Your task to perform on an android device: toggle notification dots Image 0: 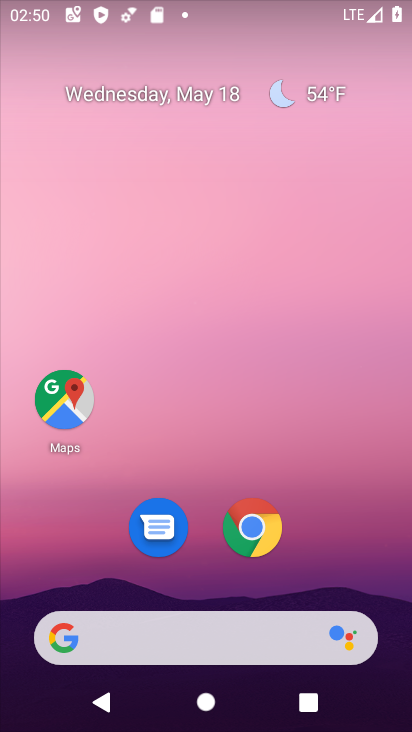
Step 0: drag from (232, 610) to (187, 215)
Your task to perform on an android device: toggle notification dots Image 1: 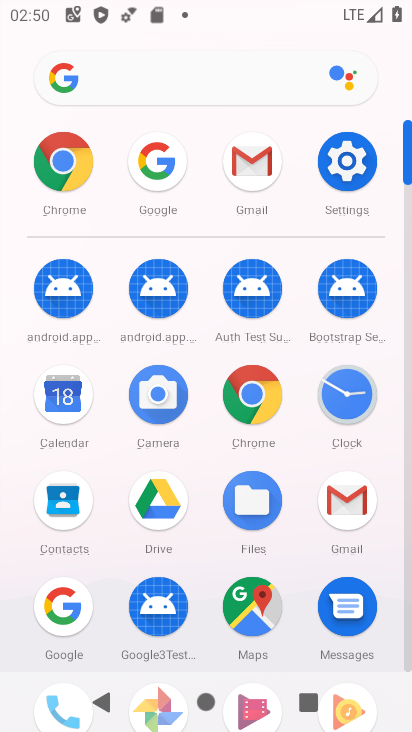
Step 1: click (339, 183)
Your task to perform on an android device: toggle notification dots Image 2: 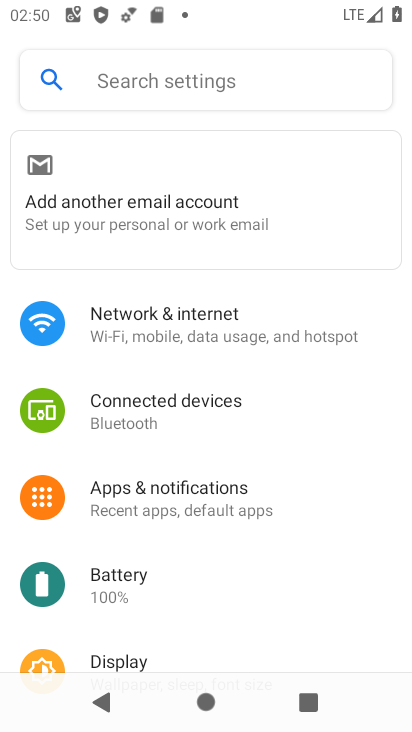
Step 2: click (173, 501)
Your task to perform on an android device: toggle notification dots Image 3: 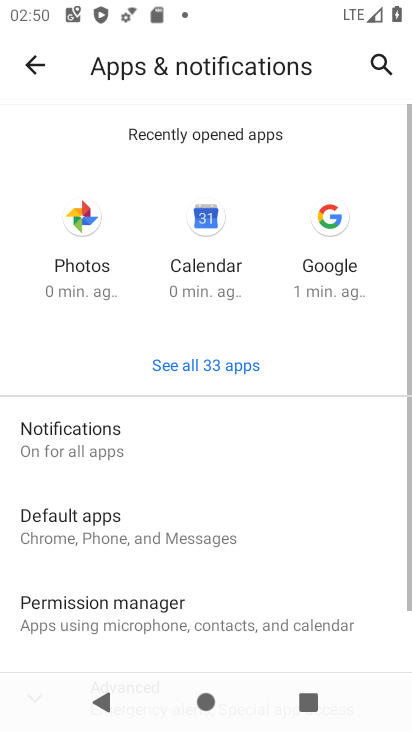
Step 3: drag from (169, 581) to (147, 326)
Your task to perform on an android device: toggle notification dots Image 4: 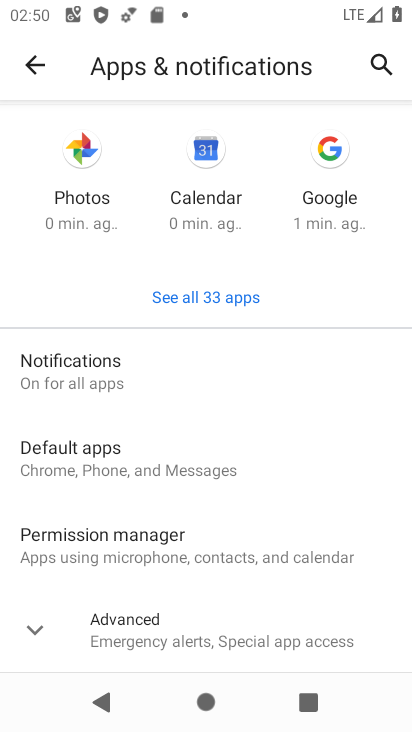
Step 4: click (158, 390)
Your task to perform on an android device: toggle notification dots Image 5: 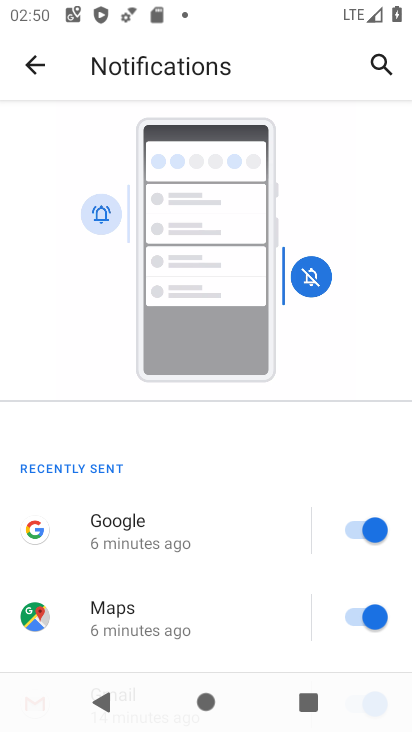
Step 5: drag from (214, 529) to (179, 118)
Your task to perform on an android device: toggle notification dots Image 6: 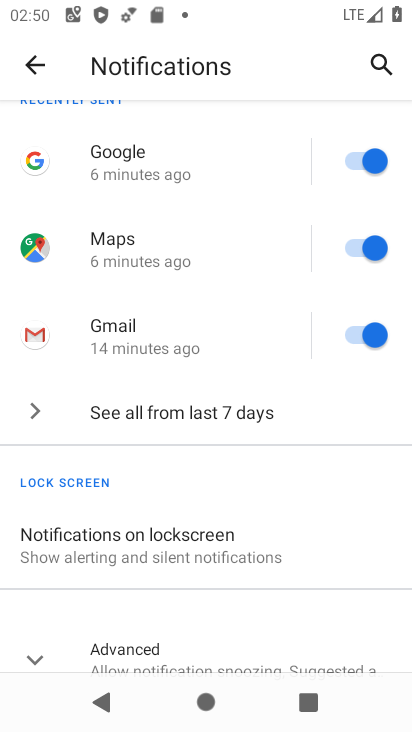
Step 6: click (154, 620)
Your task to perform on an android device: toggle notification dots Image 7: 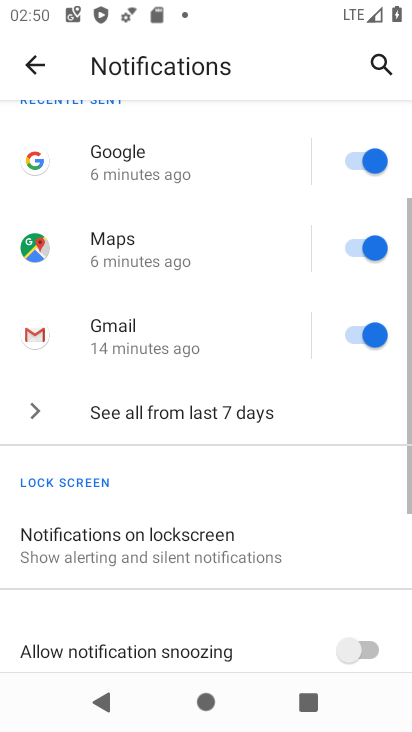
Step 7: drag from (155, 618) to (121, 71)
Your task to perform on an android device: toggle notification dots Image 8: 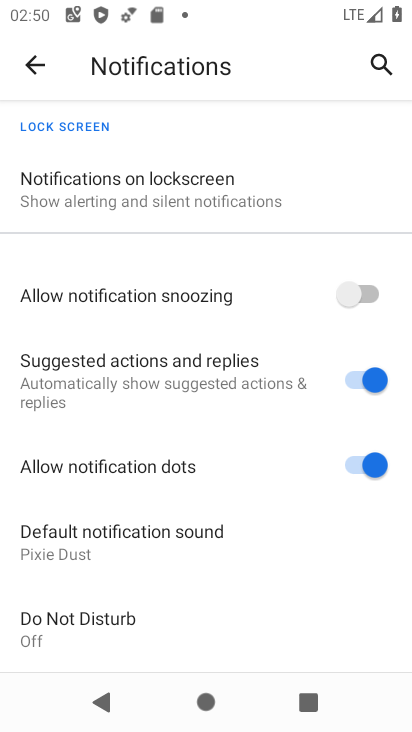
Step 8: click (347, 461)
Your task to perform on an android device: toggle notification dots Image 9: 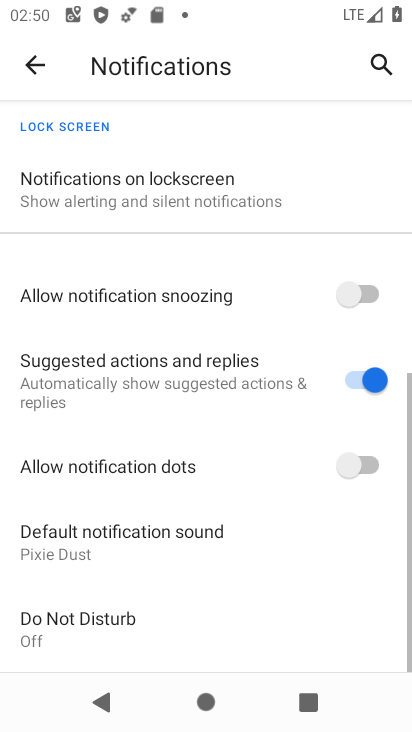
Step 9: task complete